Your task to perform on an android device: What's the weather going to be tomorrow? Image 0: 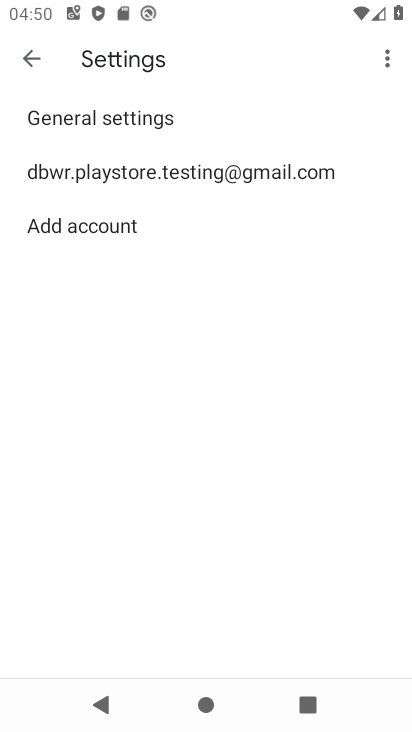
Step 0: press home button
Your task to perform on an android device: What's the weather going to be tomorrow? Image 1: 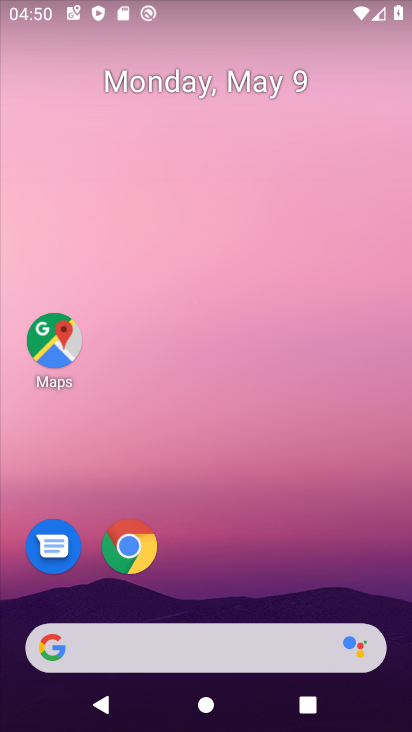
Step 1: drag from (215, 558) to (313, 98)
Your task to perform on an android device: What's the weather going to be tomorrow? Image 2: 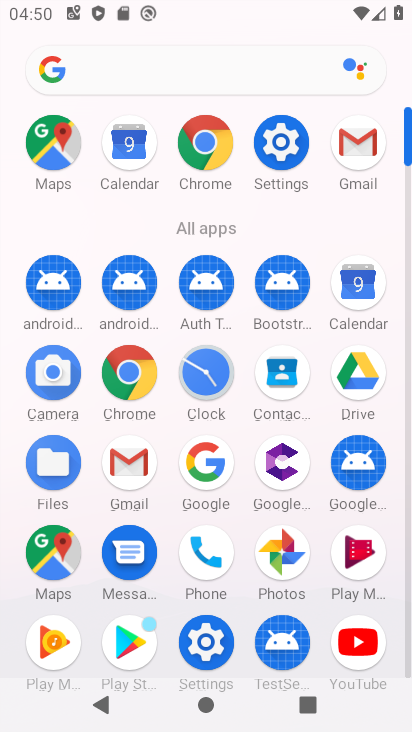
Step 2: click (186, 75)
Your task to perform on an android device: What's the weather going to be tomorrow? Image 3: 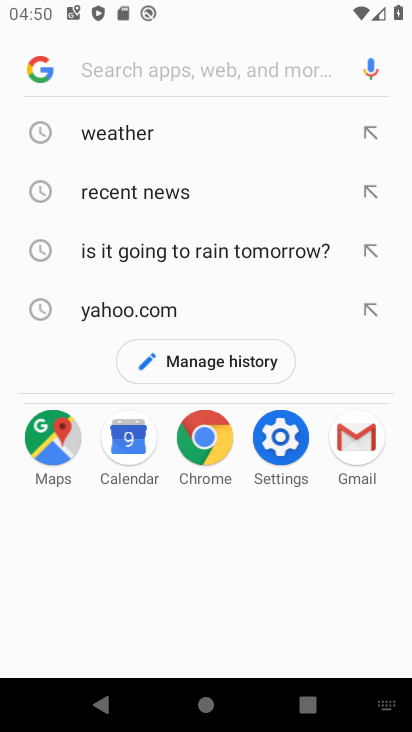
Step 3: click (169, 147)
Your task to perform on an android device: What's the weather going to be tomorrow? Image 4: 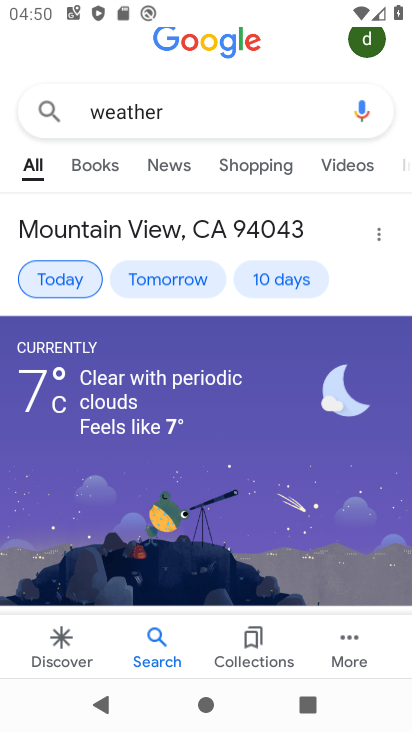
Step 4: click (189, 277)
Your task to perform on an android device: What's the weather going to be tomorrow? Image 5: 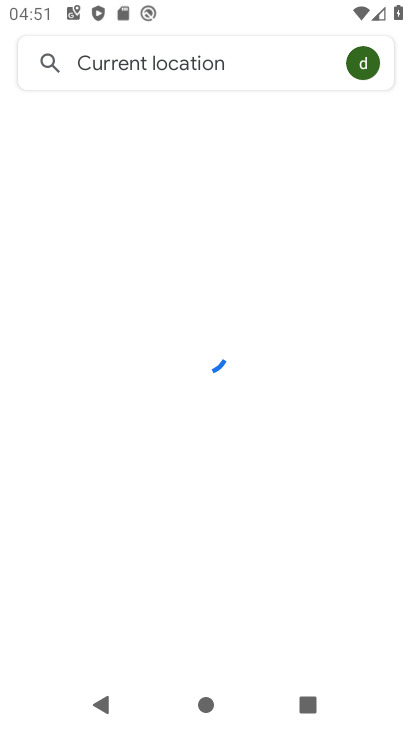
Step 5: click (190, 278)
Your task to perform on an android device: What's the weather going to be tomorrow? Image 6: 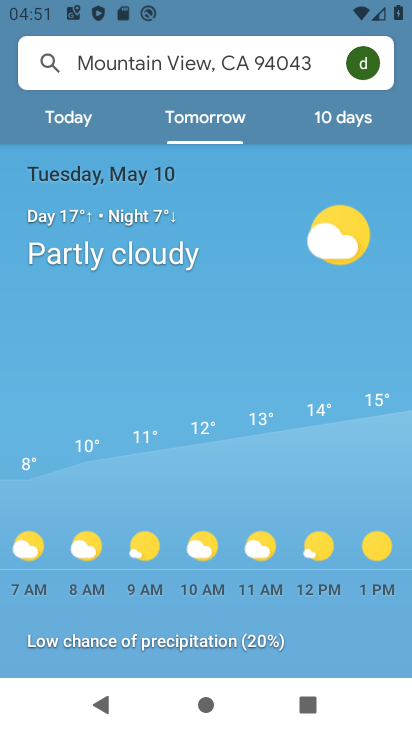
Step 6: task complete